Your task to perform on an android device: Open Youtube and go to "Your channel" Image 0: 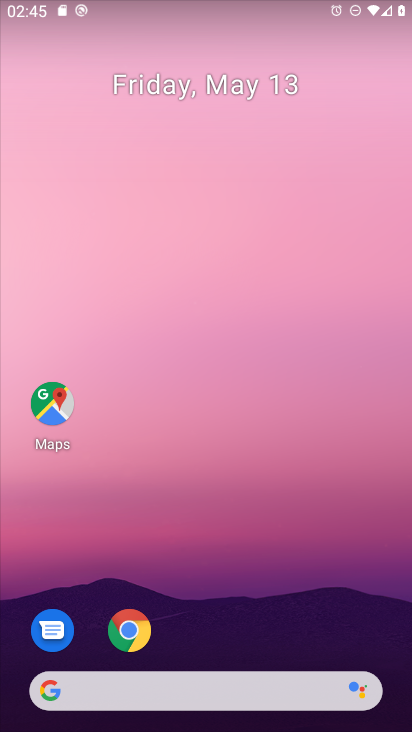
Step 0: press home button
Your task to perform on an android device: Open Youtube and go to "Your channel" Image 1: 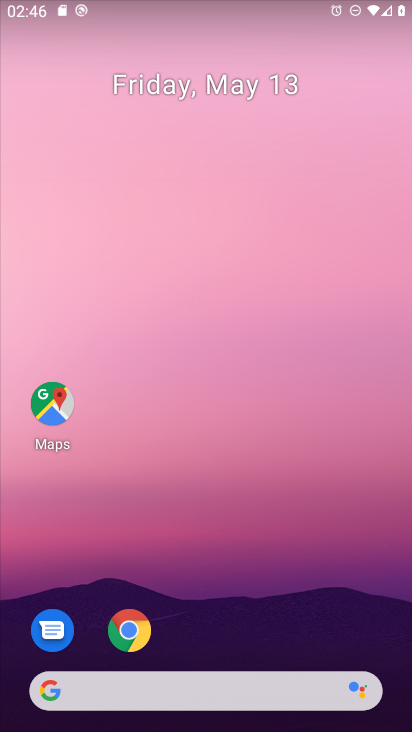
Step 1: drag from (246, 714) to (327, 61)
Your task to perform on an android device: Open Youtube and go to "Your channel" Image 2: 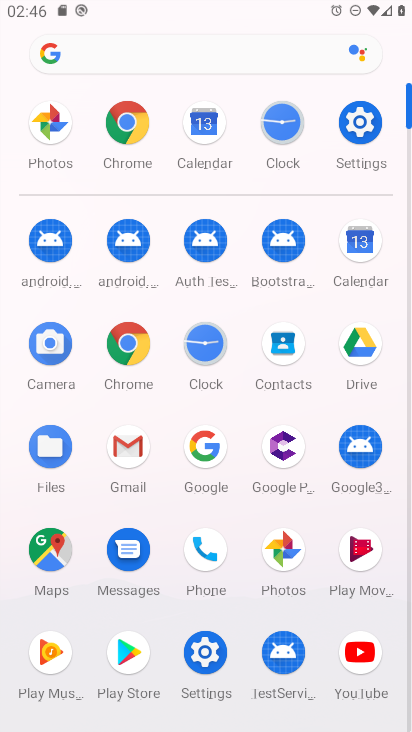
Step 2: click (352, 647)
Your task to perform on an android device: Open Youtube and go to "Your channel" Image 3: 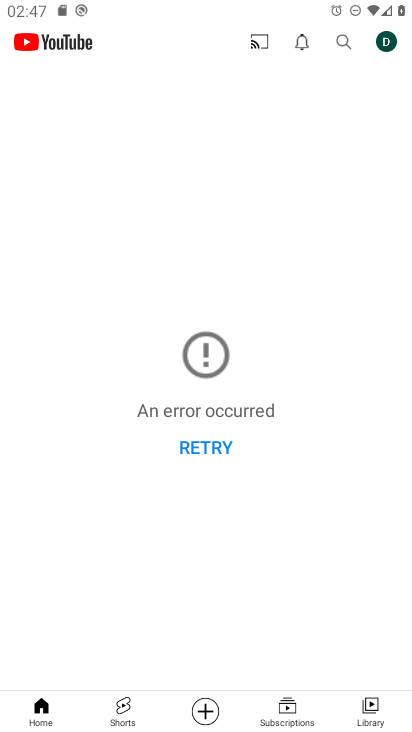
Step 3: click (373, 31)
Your task to perform on an android device: Open Youtube and go to "Your channel" Image 4: 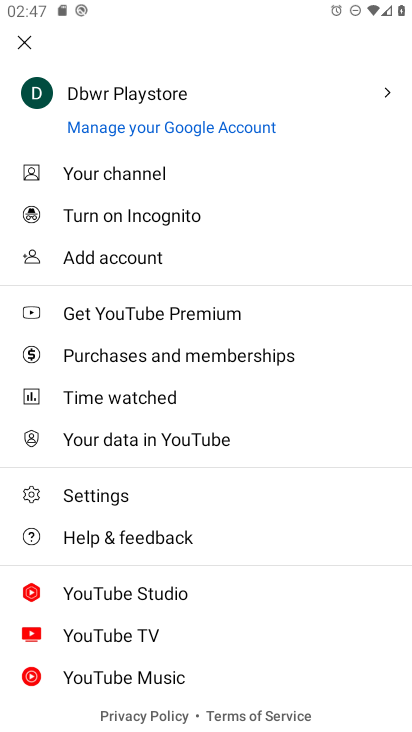
Step 4: click (144, 179)
Your task to perform on an android device: Open Youtube and go to "Your channel" Image 5: 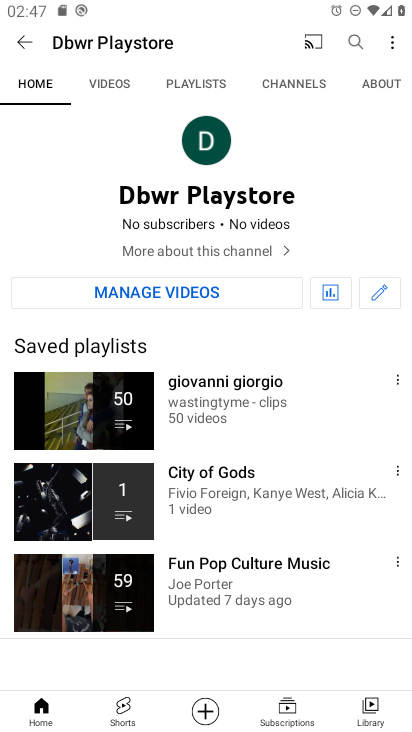
Step 5: task complete